Your task to perform on an android device: What's on my calendar tomorrow? Image 0: 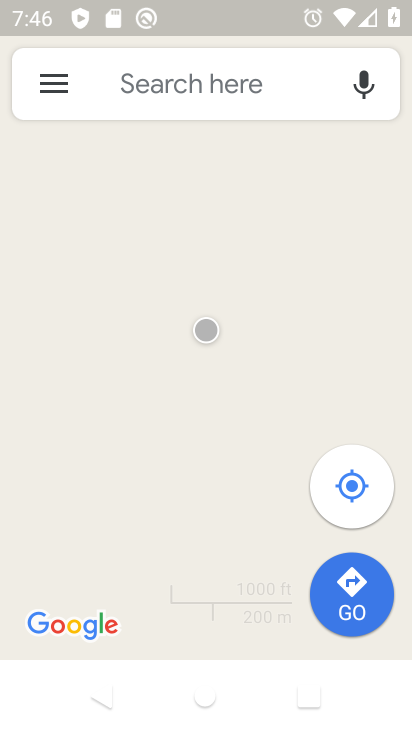
Step 0: press home button
Your task to perform on an android device: What's on my calendar tomorrow? Image 1: 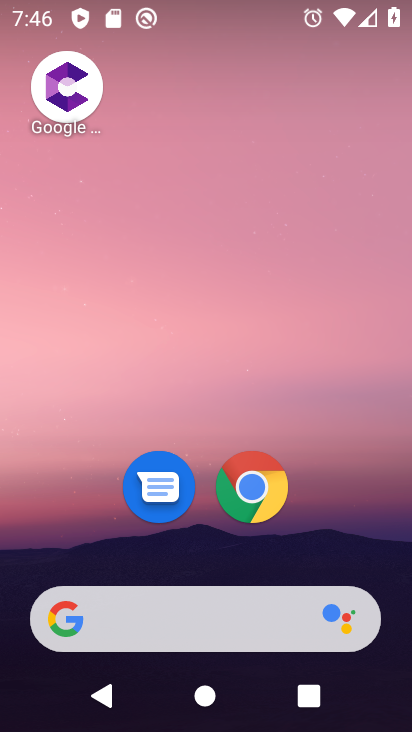
Step 1: drag from (332, 601) to (317, 283)
Your task to perform on an android device: What's on my calendar tomorrow? Image 2: 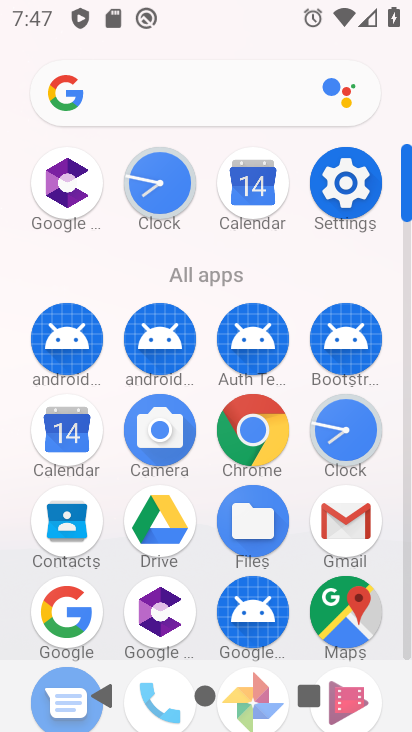
Step 2: click (64, 450)
Your task to perform on an android device: What's on my calendar tomorrow? Image 3: 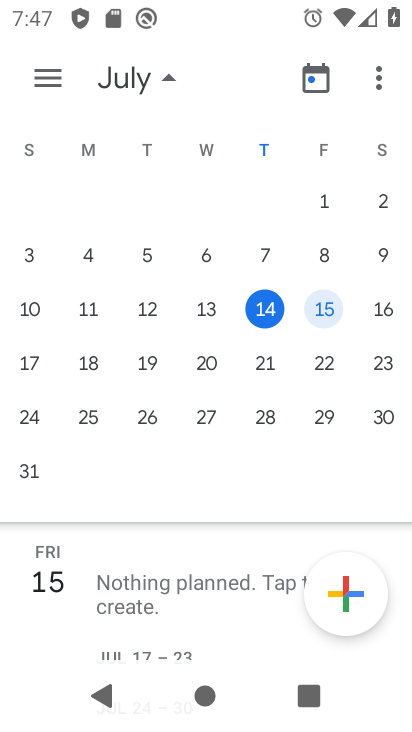
Step 3: click (334, 312)
Your task to perform on an android device: What's on my calendar tomorrow? Image 4: 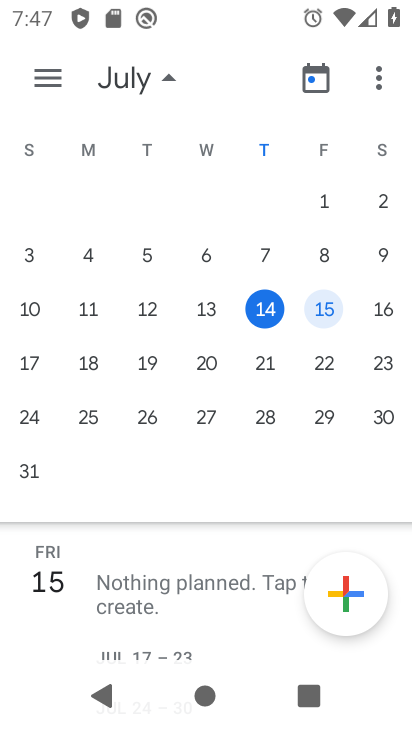
Step 4: task complete